Your task to perform on an android device: Clear the cart on walmart. Add razer naga to the cart on walmart, then select checkout. Image 0: 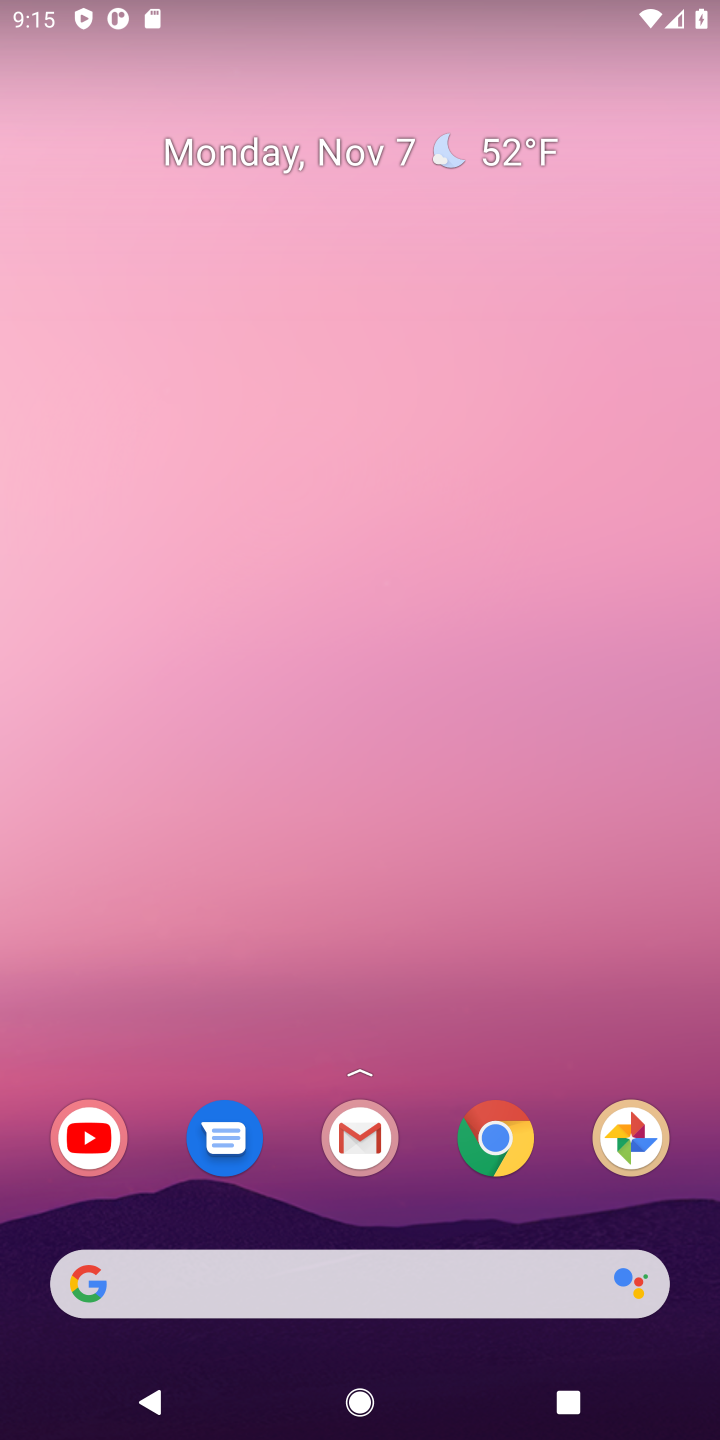
Step 0: press home button
Your task to perform on an android device: Clear the cart on walmart. Add razer naga to the cart on walmart, then select checkout. Image 1: 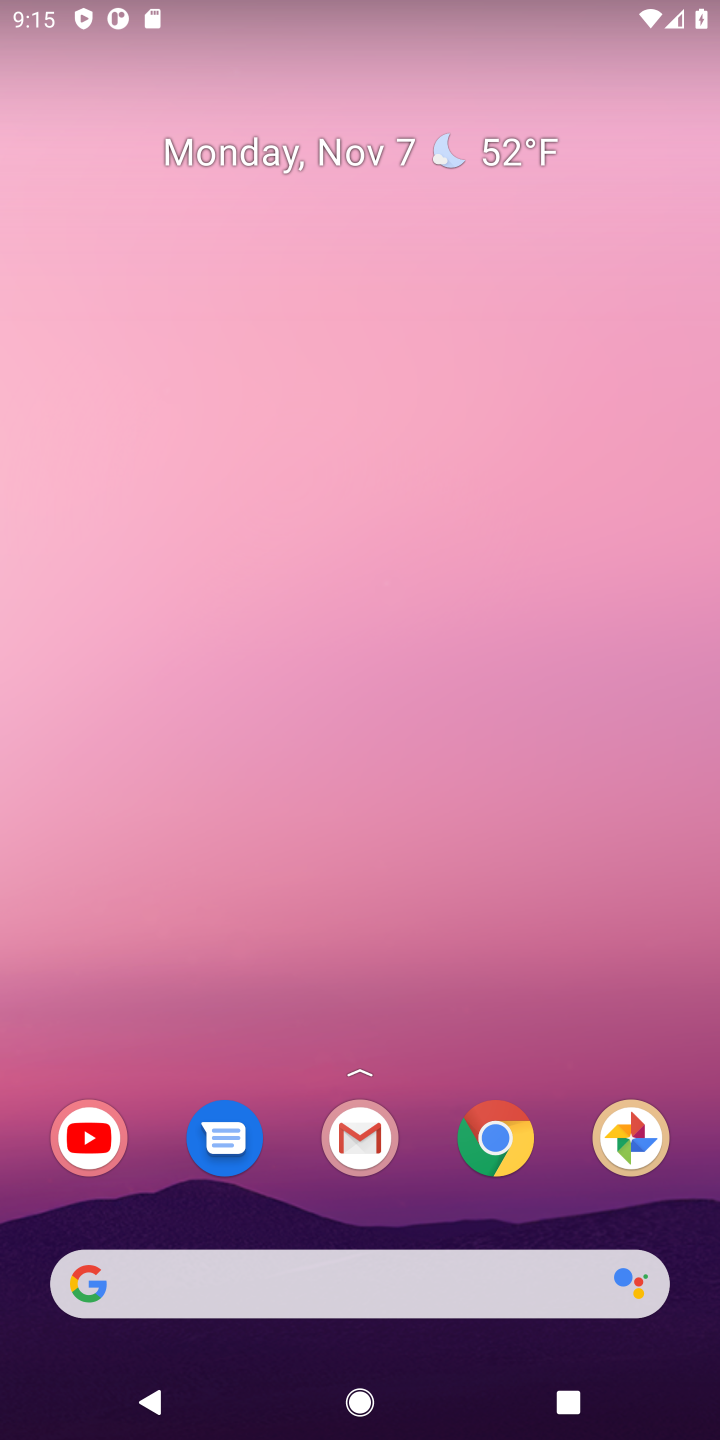
Step 1: drag from (415, 1224) to (286, 279)
Your task to perform on an android device: Clear the cart on walmart. Add razer naga to the cart on walmart, then select checkout. Image 2: 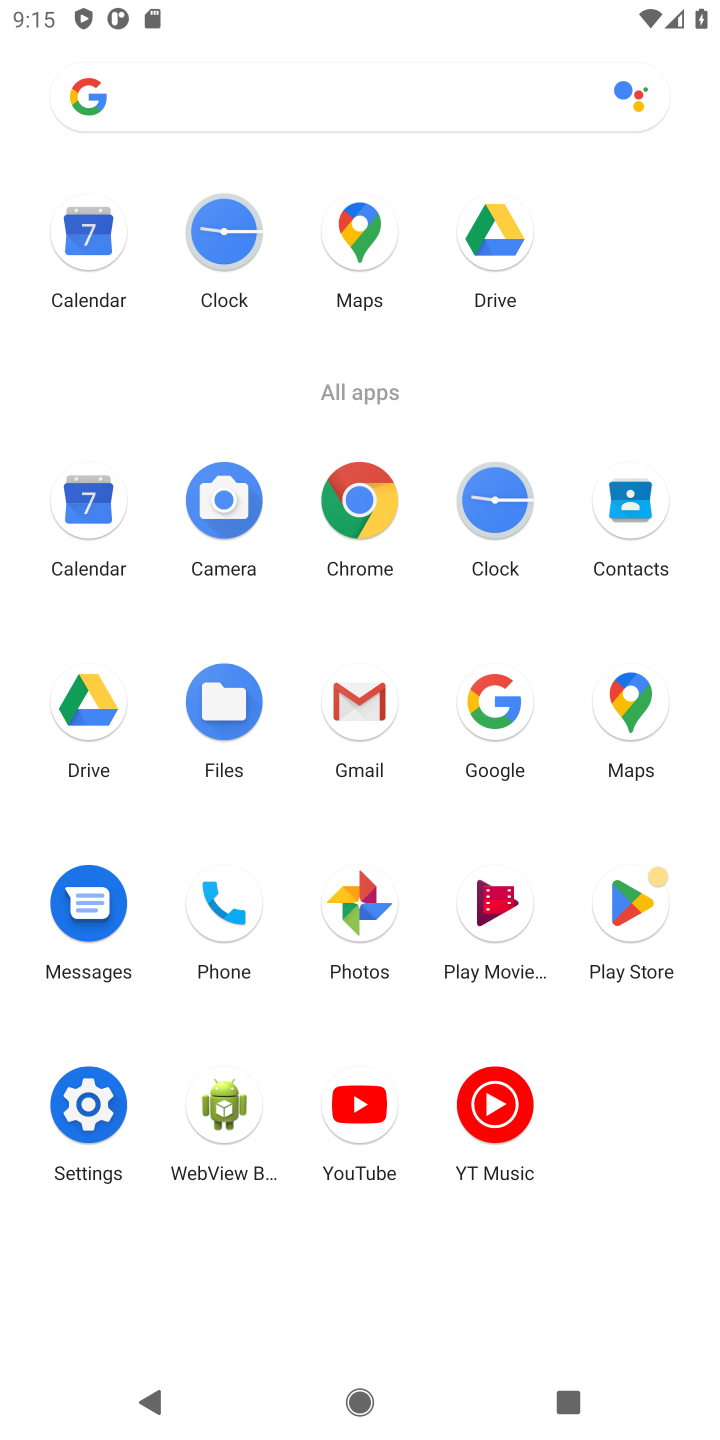
Step 2: click (491, 714)
Your task to perform on an android device: Clear the cart on walmart. Add razer naga to the cart on walmart, then select checkout. Image 3: 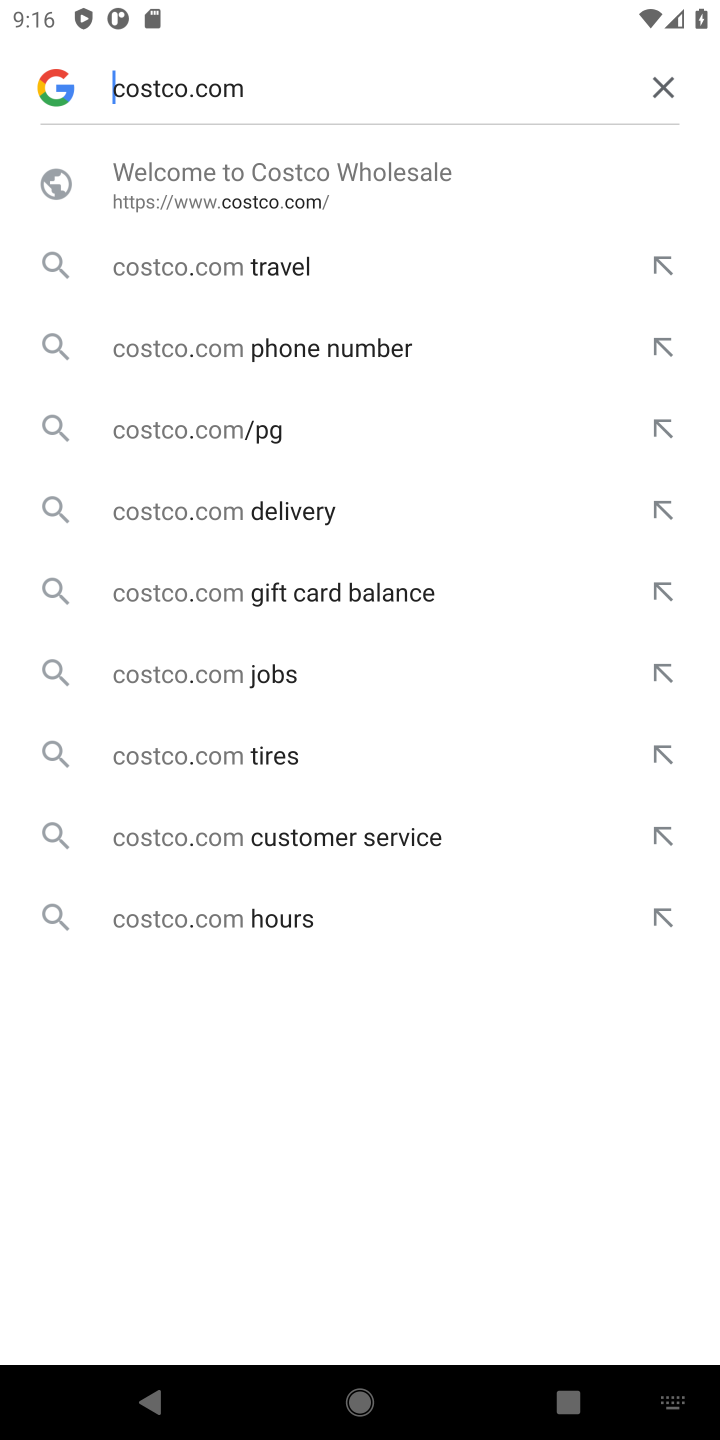
Step 3: click (665, 81)
Your task to perform on an android device: Clear the cart on walmart. Add razer naga to the cart on walmart, then select checkout. Image 4: 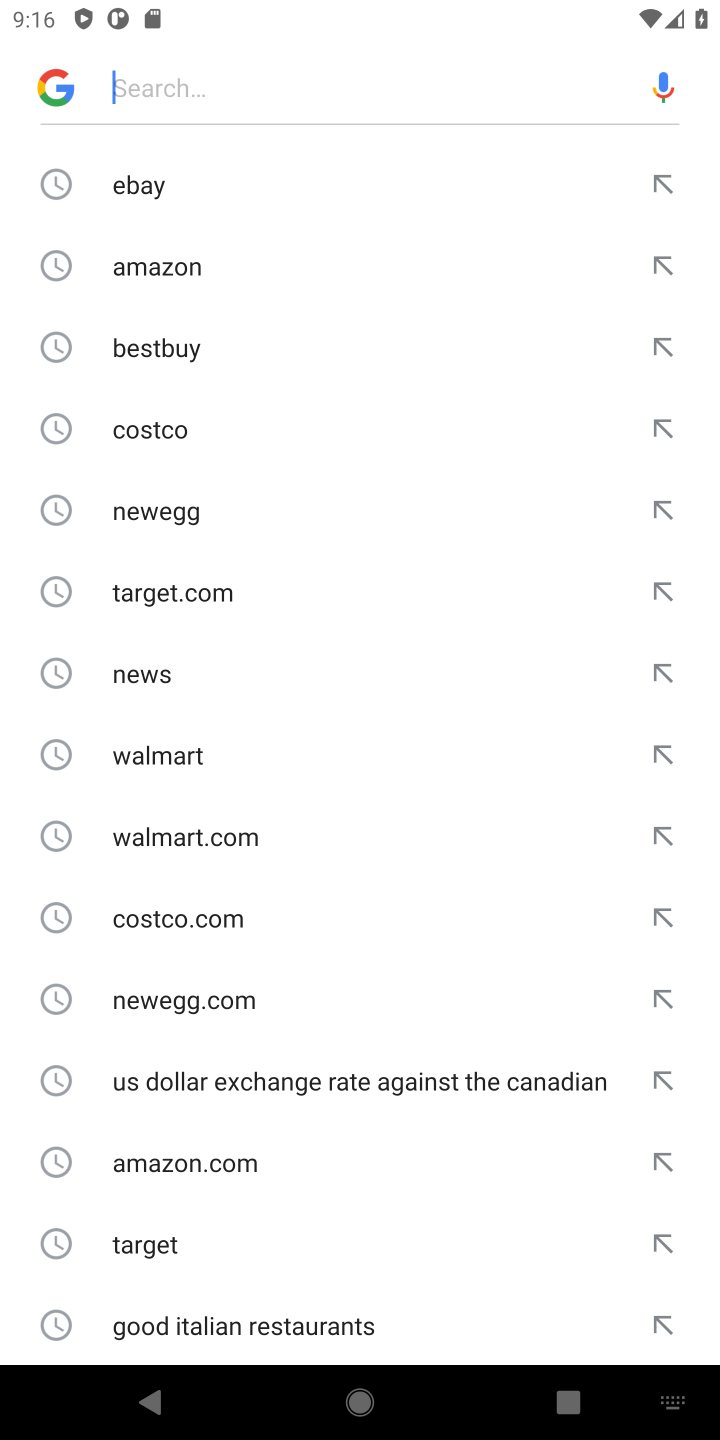
Step 4: type "\"
Your task to perform on an android device: Clear the cart on walmart. Add razer naga to the cart on walmart, then select checkout. Image 5: 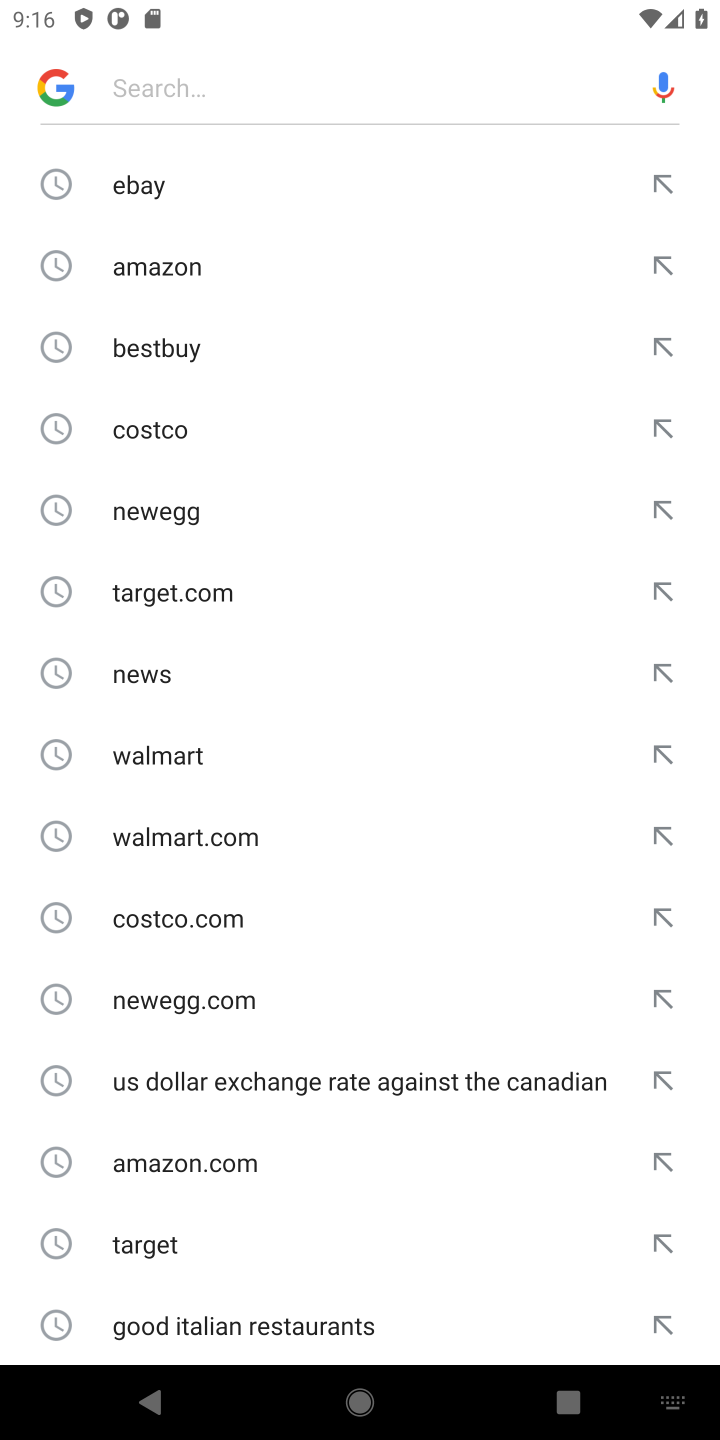
Step 5: type "walmart"
Your task to perform on an android device: Clear the cart on walmart. Add razer naga to the cart on walmart, then select checkout. Image 6: 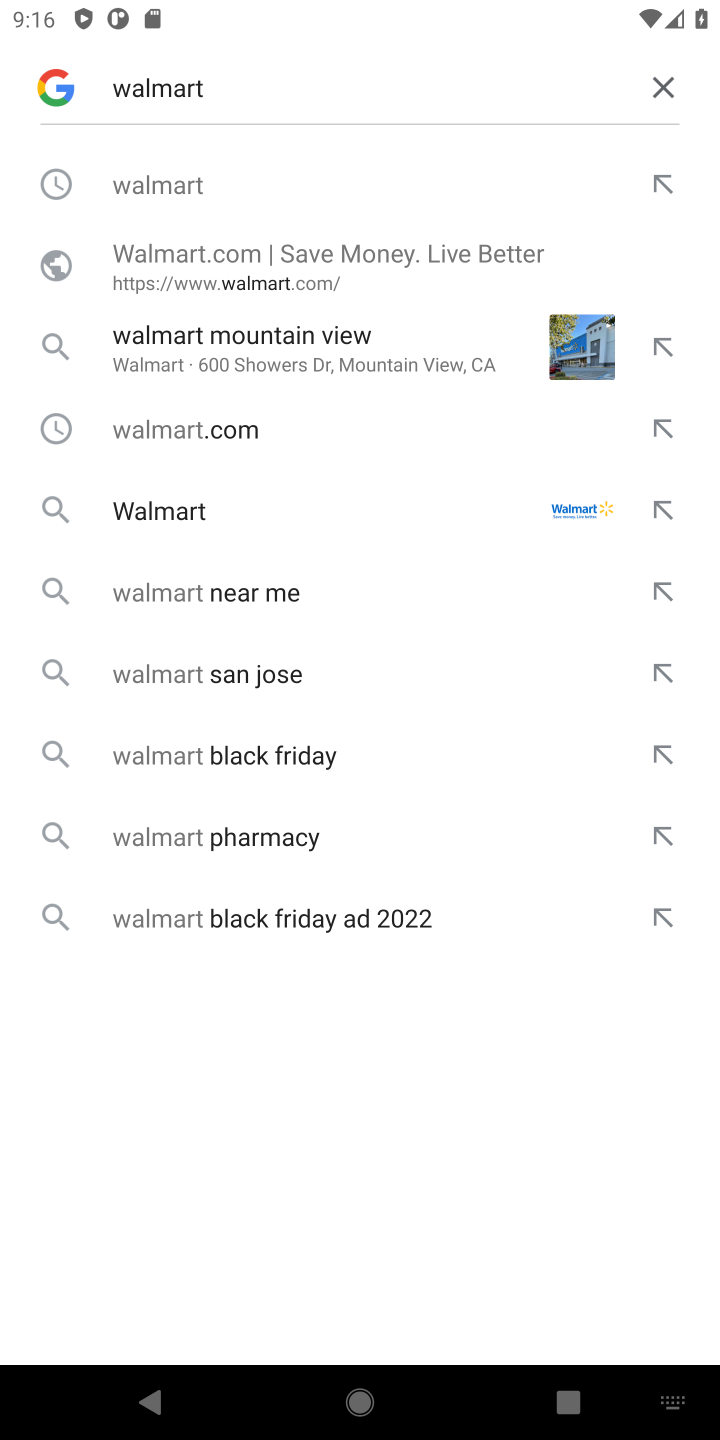
Step 6: click (320, 254)
Your task to perform on an android device: Clear the cart on walmart. Add razer naga to the cart on walmart, then select checkout. Image 7: 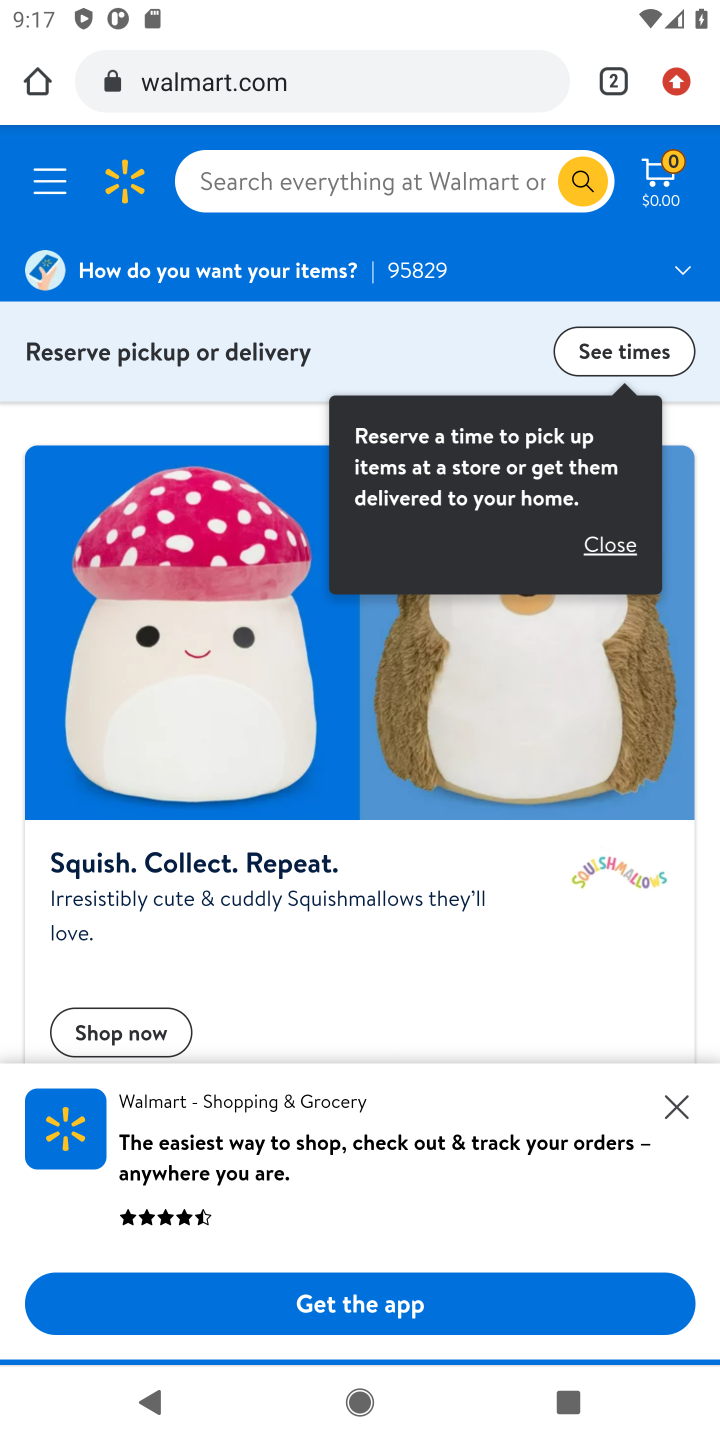
Step 7: click (431, 200)
Your task to perform on an android device: Clear the cart on walmart. Add razer naga to the cart on walmart, then select checkout. Image 8: 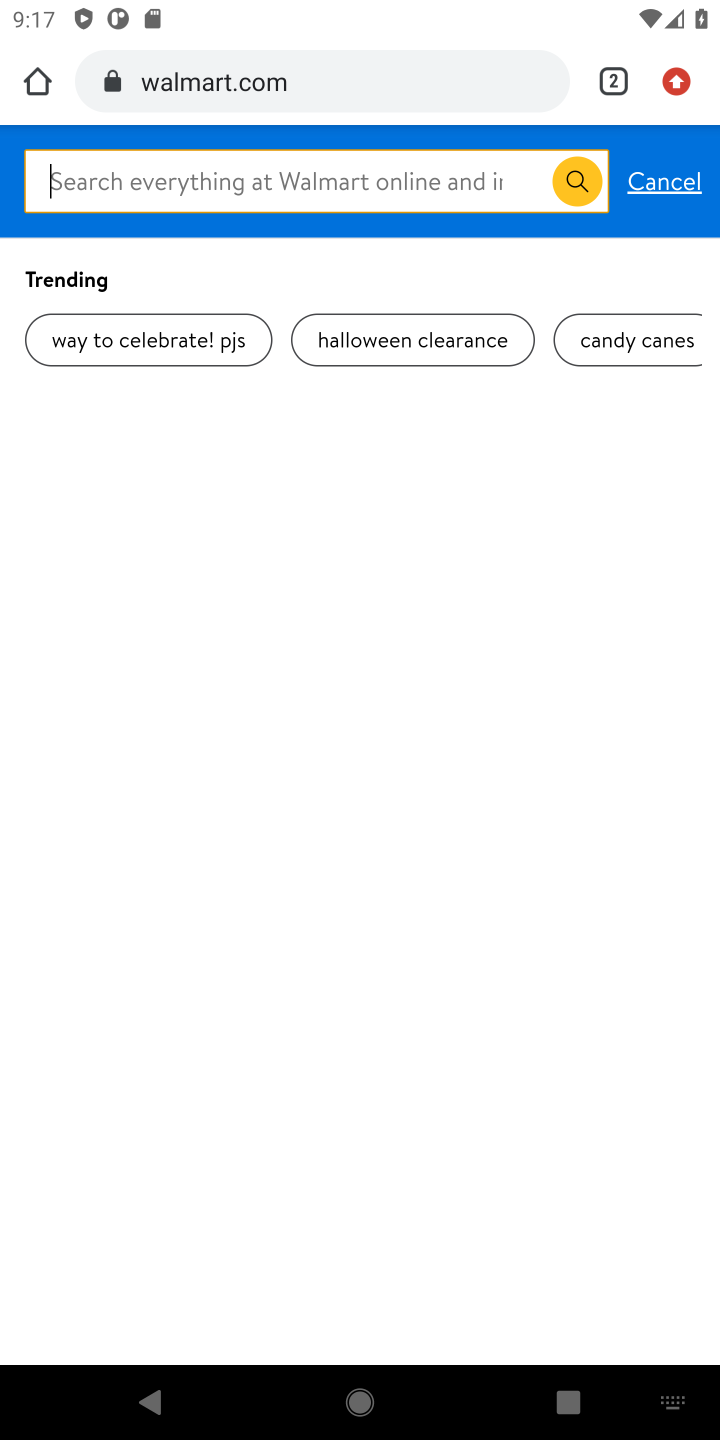
Step 8: type "razer naga"
Your task to perform on an android device: Clear the cart on walmart. Add razer naga to the cart on walmart, then select checkout. Image 9: 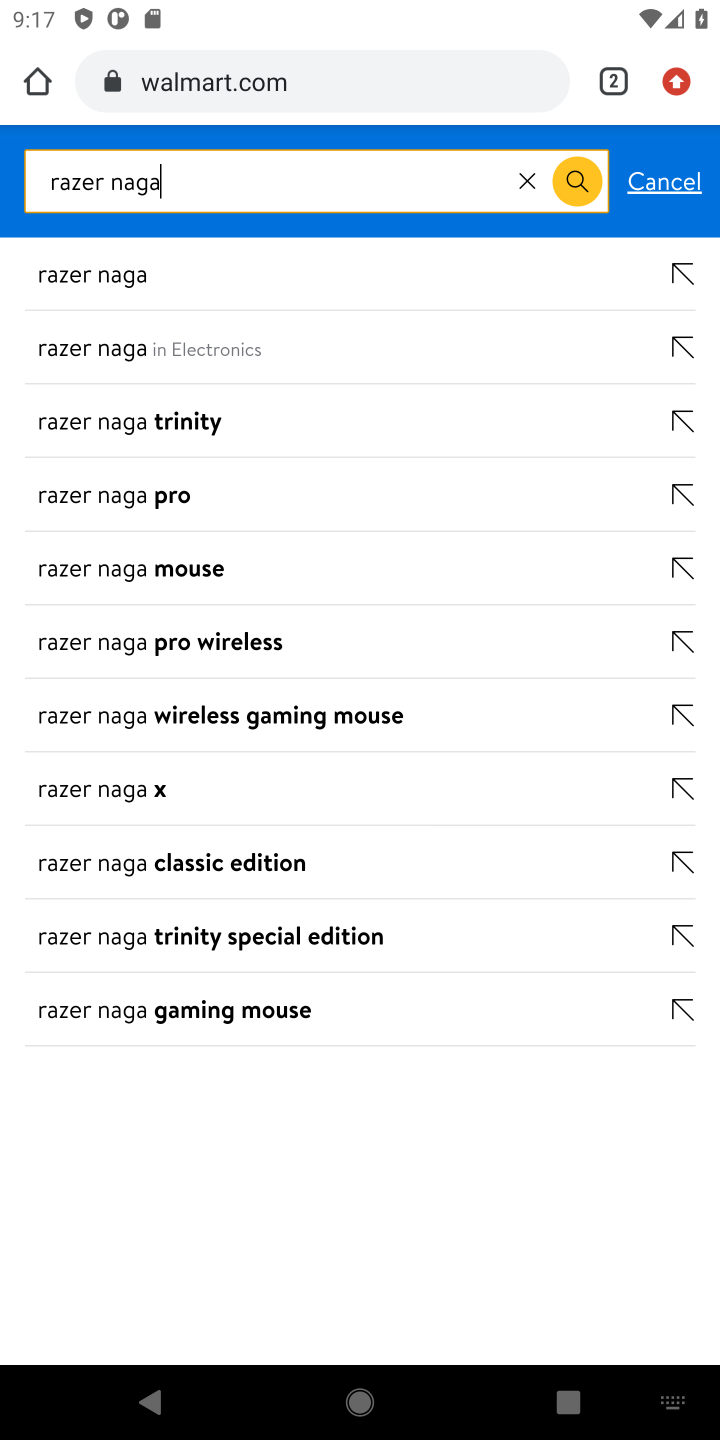
Step 9: click (381, 333)
Your task to perform on an android device: Clear the cart on walmart. Add razer naga to the cart on walmart, then select checkout. Image 10: 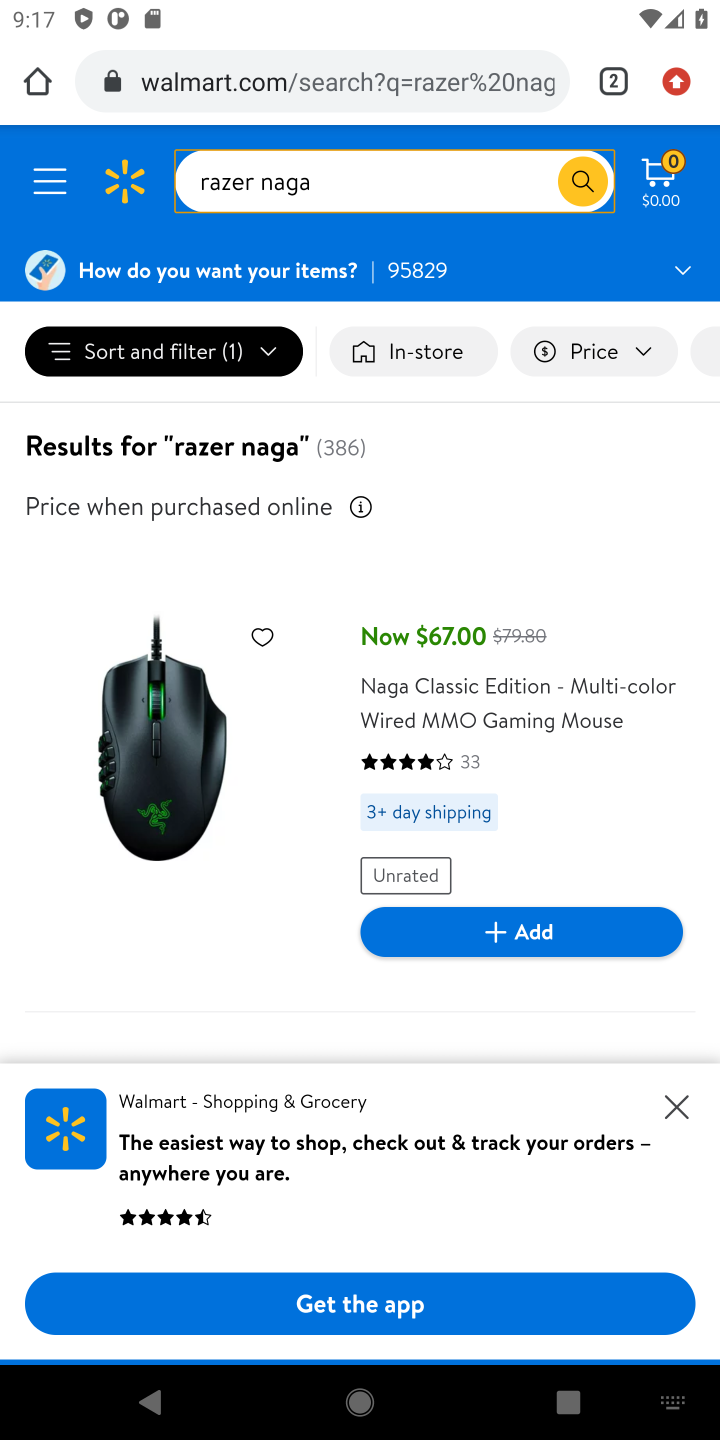
Step 10: click (548, 943)
Your task to perform on an android device: Clear the cart on walmart. Add razer naga to the cart on walmart, then select checkout. Image 11: 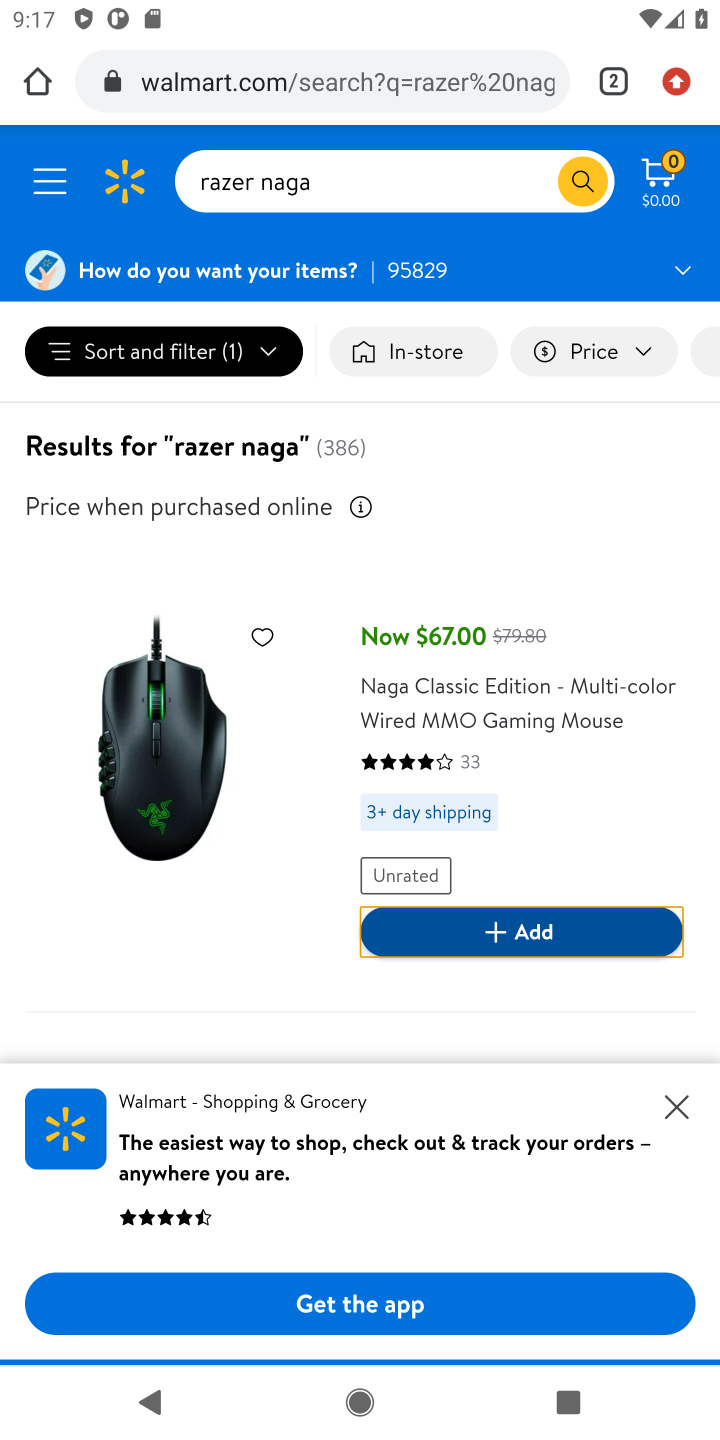
Step 11: click (685, 1099)
Your task to perform on an android device: Clear the cart on walmart. Add razer naga to the cart on walmart, then select checkout. Image 12: 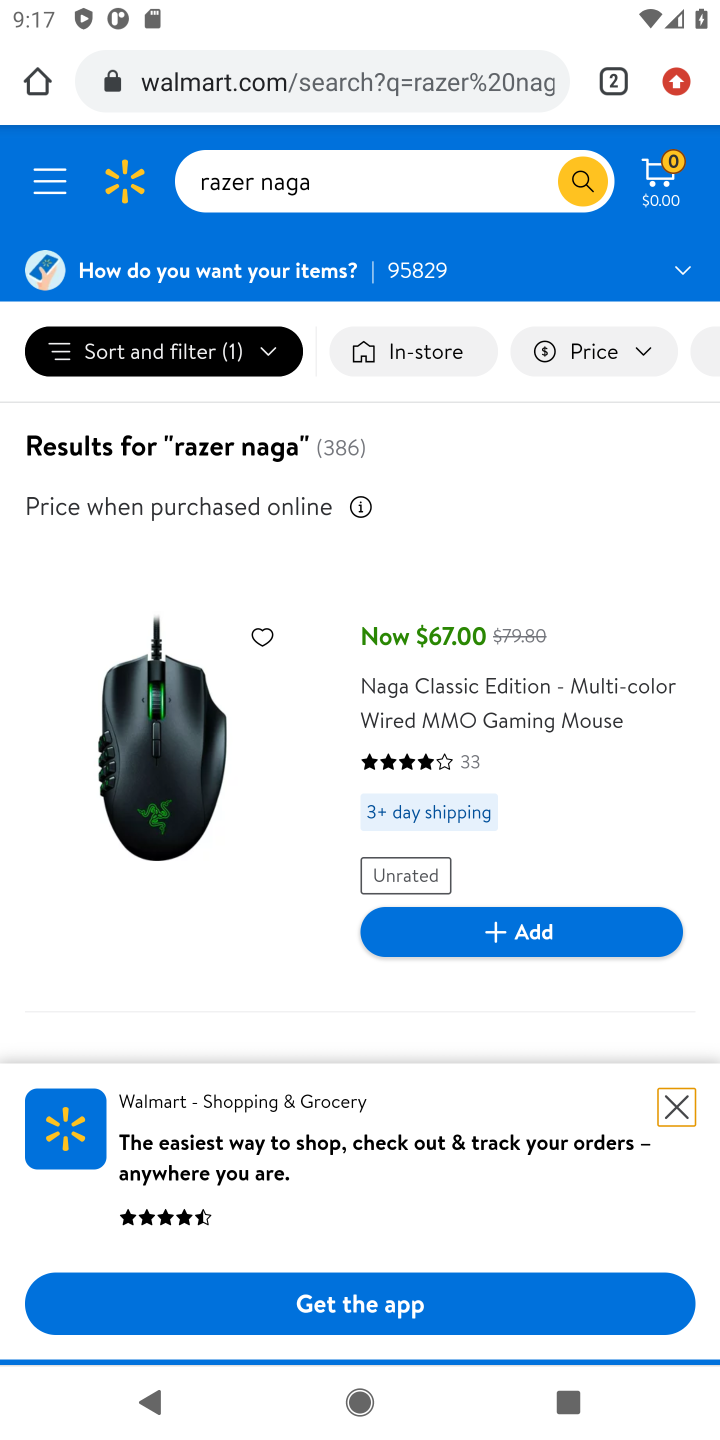
Step 12: click (685, 1099)
Your task to perform on an android device: Clear the cart on walmart. Add razer naga to the cart on walmart, then select checkout. Image 13: 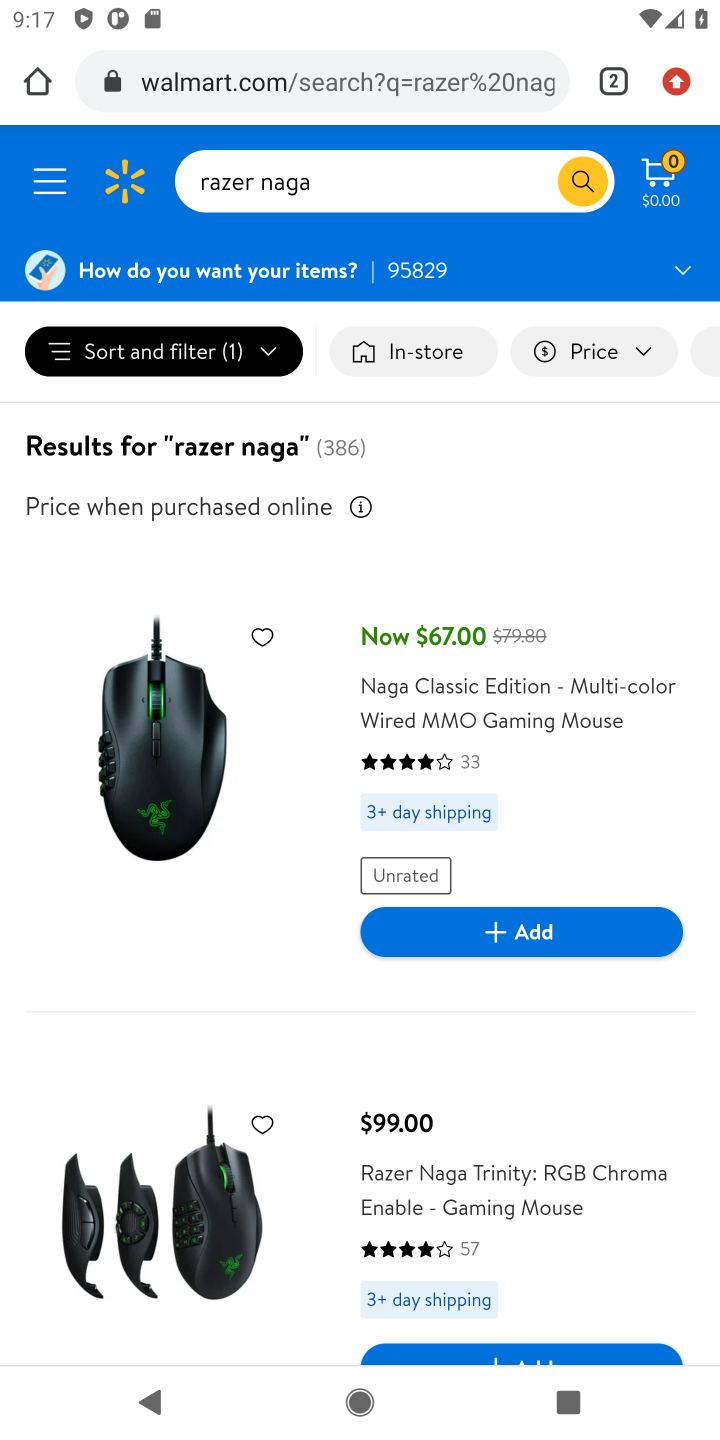
Step 13: click (512, 939)
Your task to perform on an android device: Clear the cart on walmart. Add razer naga to the cart on walmart, then select checkout. Image 14: 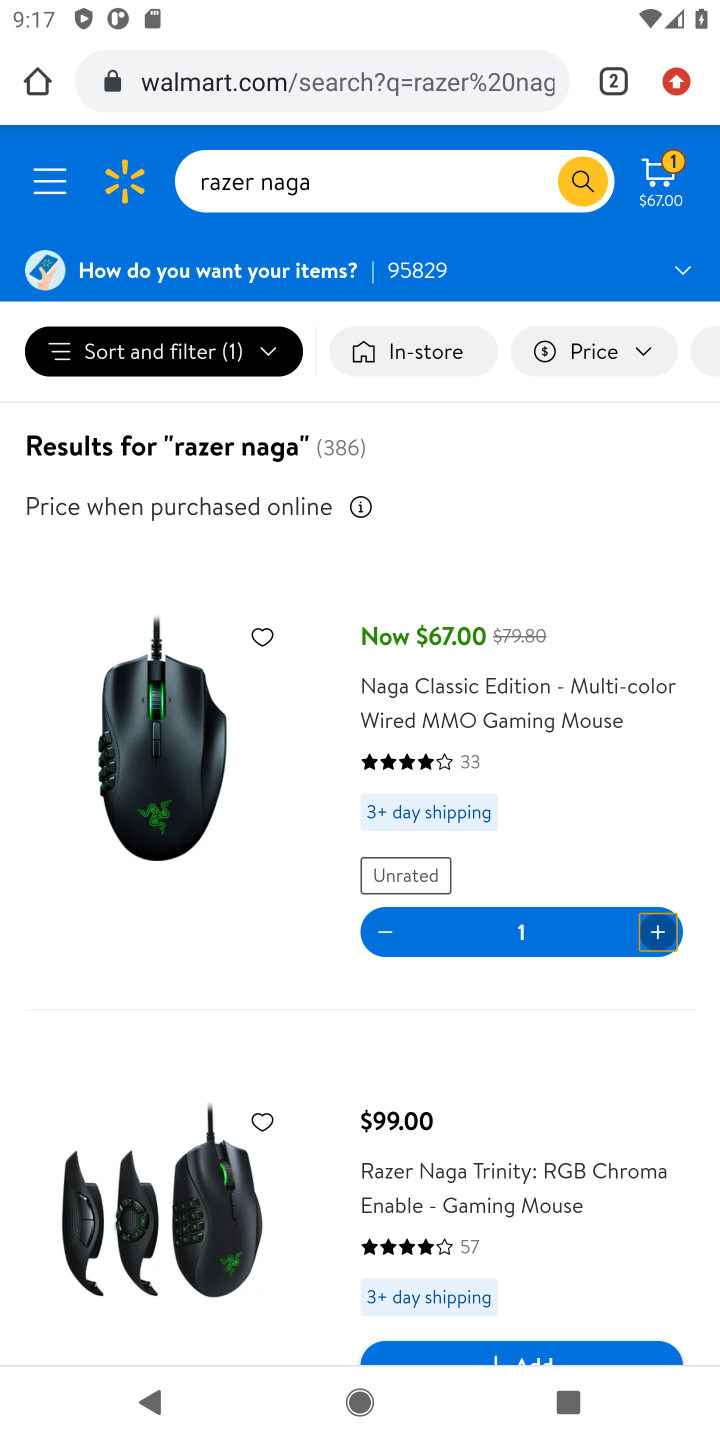
Step 14: click (659, 196)
Your task to perform on an android device: Clear the cart on walmart. Add razer naga to the cart on walmart, then select checkout. Image 15: 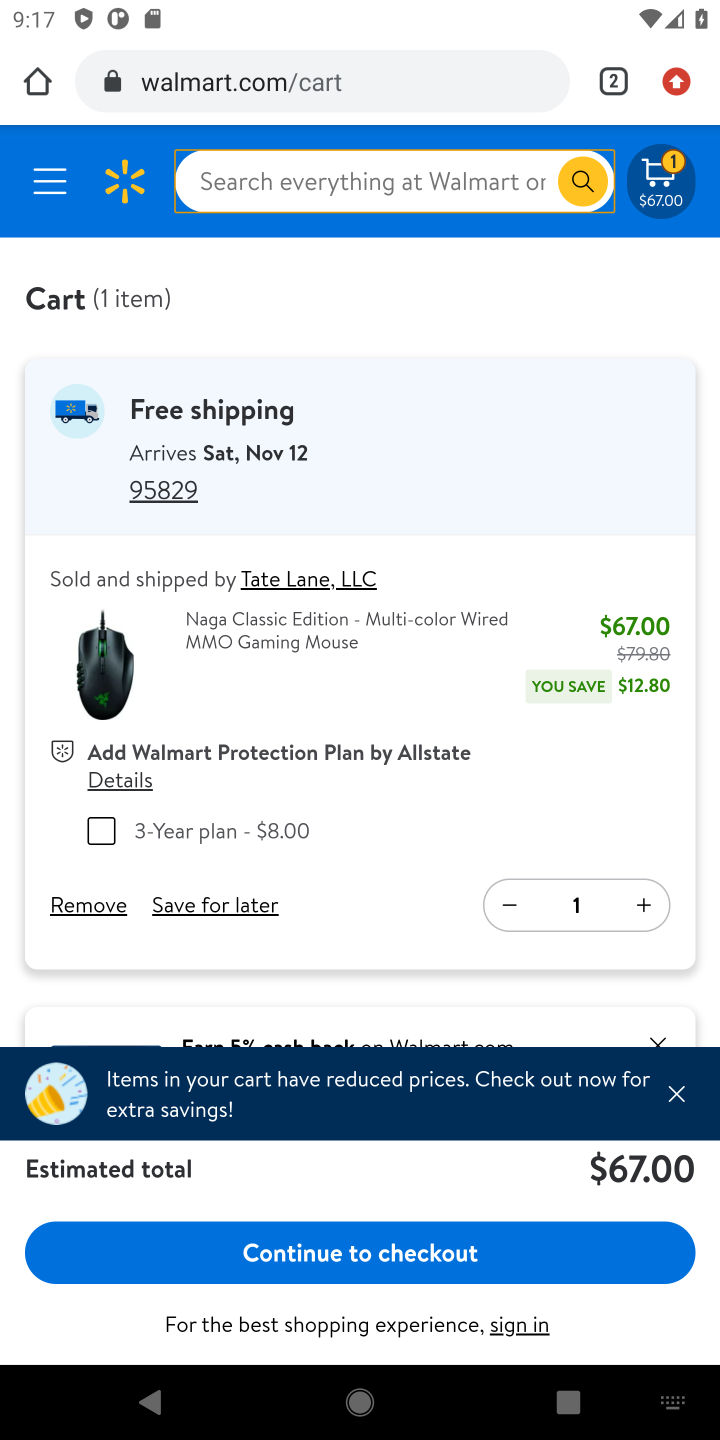
Step 15: click (417, 1244)
Your task to perform on an android device: Clear the cart on walmart. Add razer naga to the cart on walmart, then select checkout. Image 16: 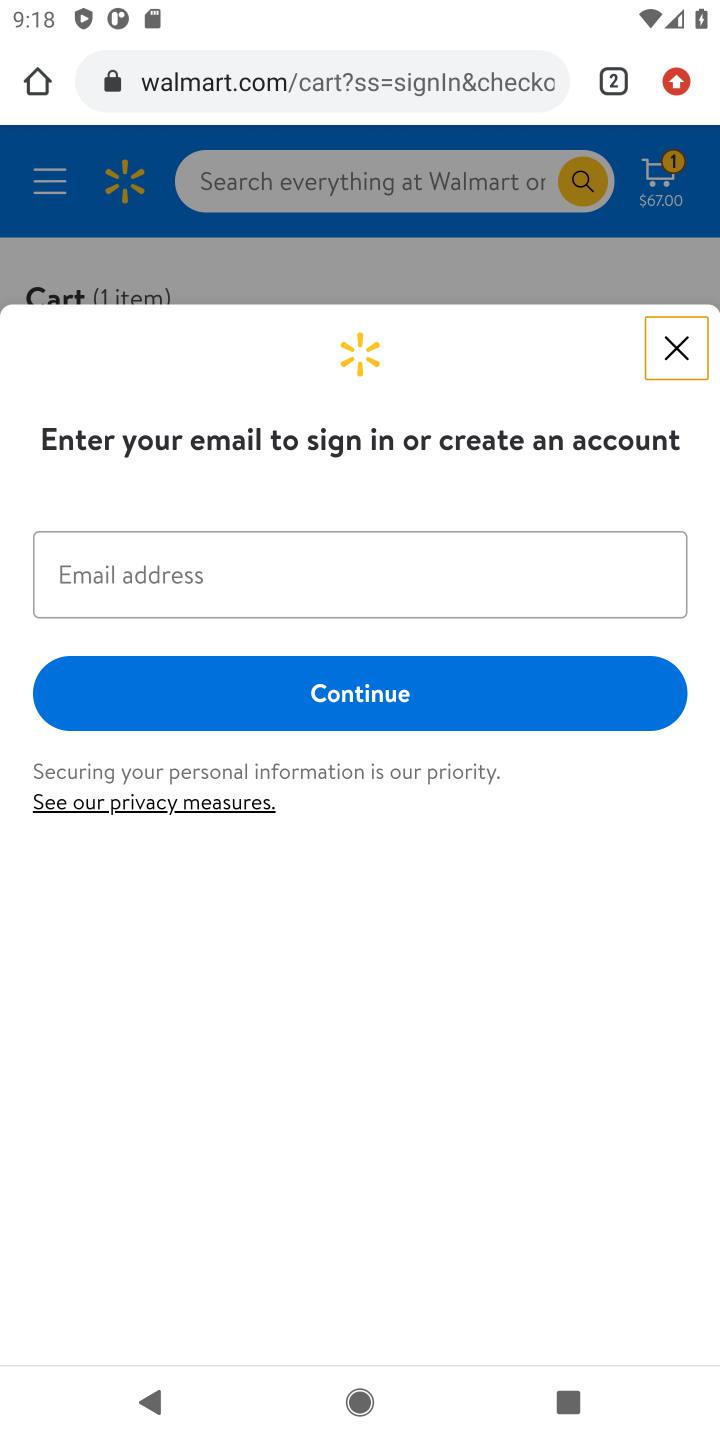
Step 16: task complete